Your task to perform on an android device: Turn off the flashlight Image 0: 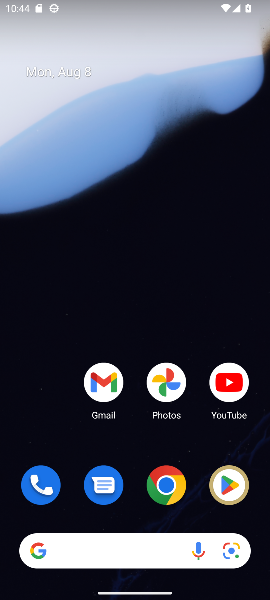
Step 0: drag from (123, 4) to (171, 596)
Your task to perform on an android device: Turn off the flashlight Image 1: 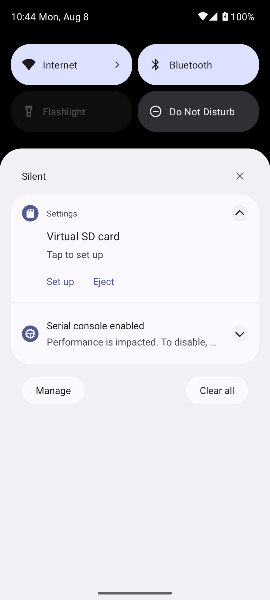
Step 1: task complete